Your task to perform on an android device: Open Google Chrome Image 0: 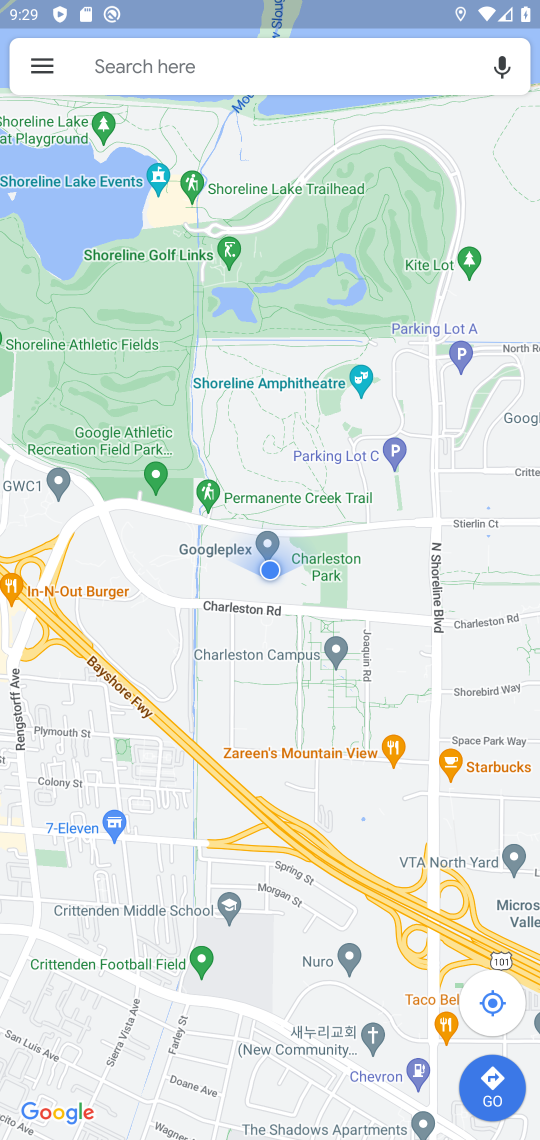
Step 0: task complete